Your task to perform on an android device: Open Yahoo.com Image 0: 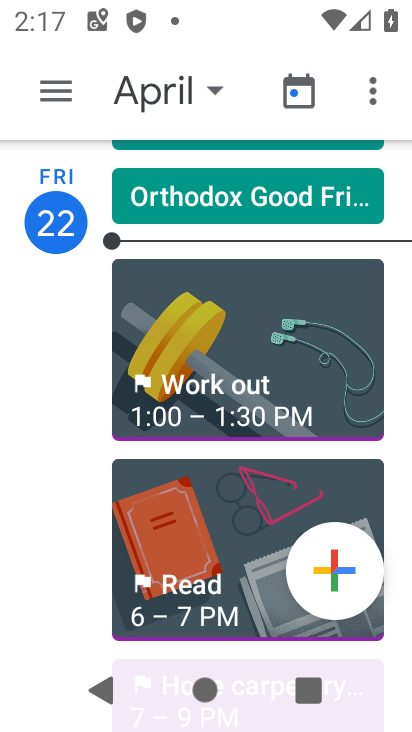
Step 0: press home button
Your task to perform on an android device: Open Yahoo.com Image 1: 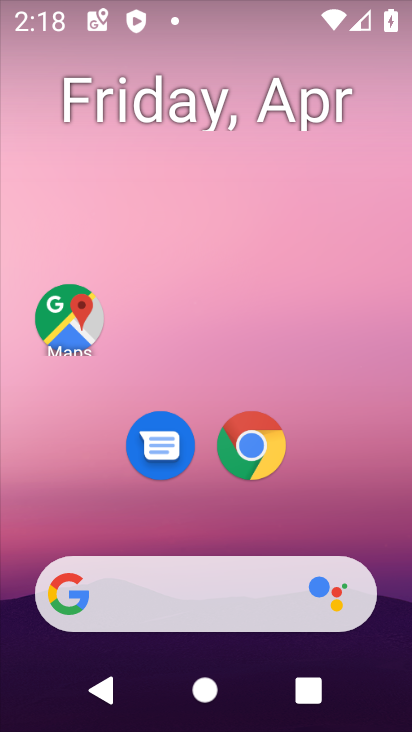
Step 1: click (251, 451)
Your task to perform on an android device: Open Yahoo.com Image 2: 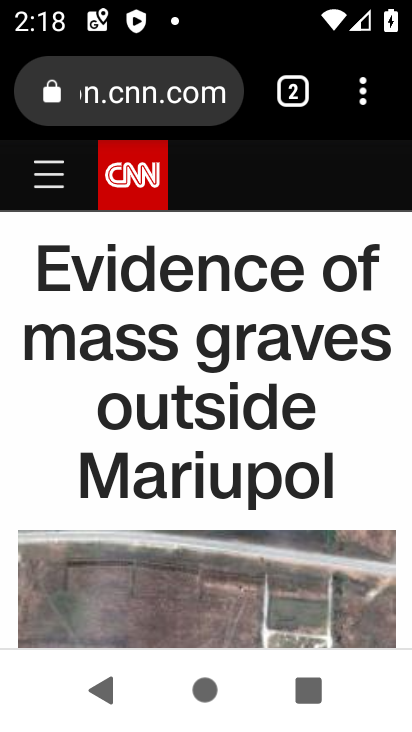
Step 2: click (194, 97)
Your task to perform on an android device: Open Yahoo.com Image 3: 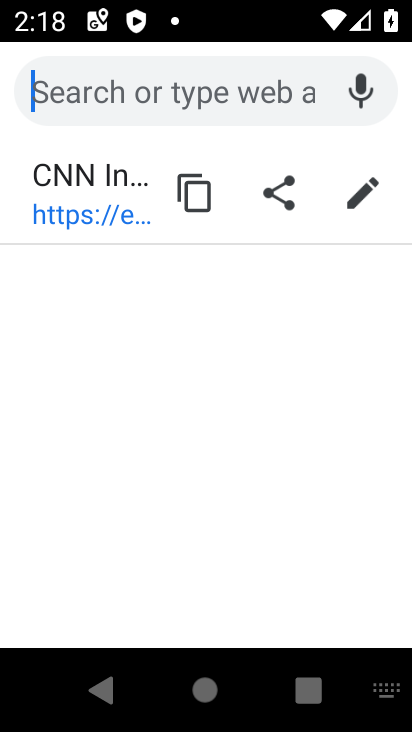
Step 3: type "Yahoo.com"
Your task to perform on an android device: Open Yahoo.com Image 4: 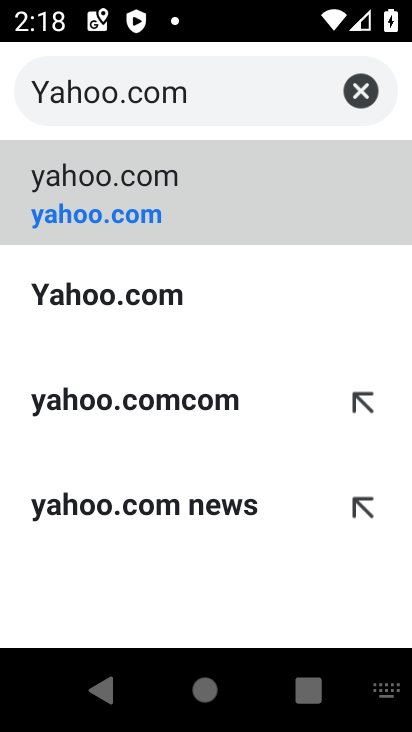
Step 4: click (165, 306)
Your task to perform on an android device: Open Yahoo.com Image 5: 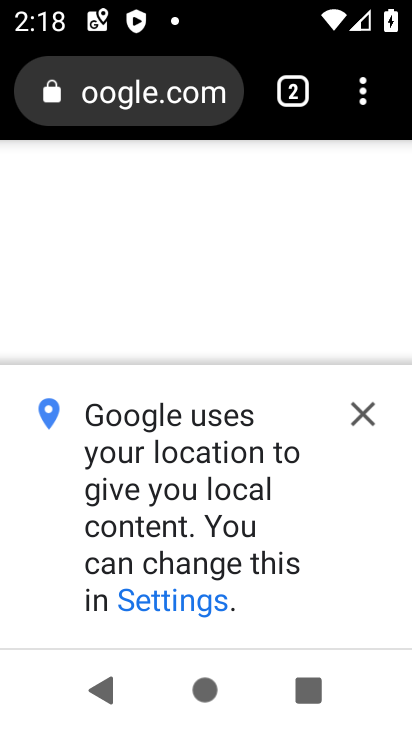
Step 5: click (366, 417)
Your task to perform on an android device: Open Yahoo.com Image 6: 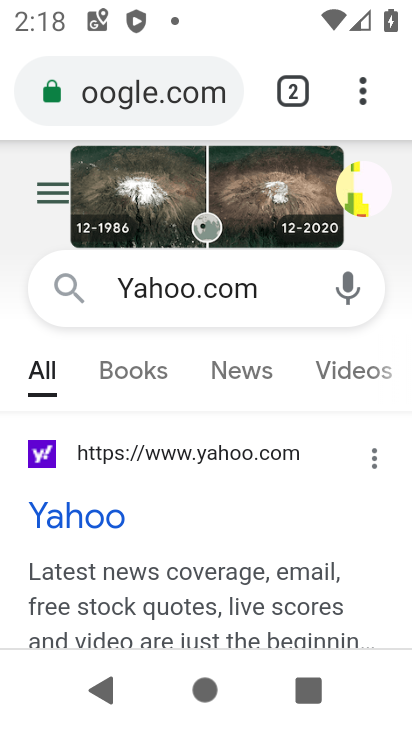
Step 6: task complete